Your task to perform on an android device: add a label to a message in the gmail app Image 0: 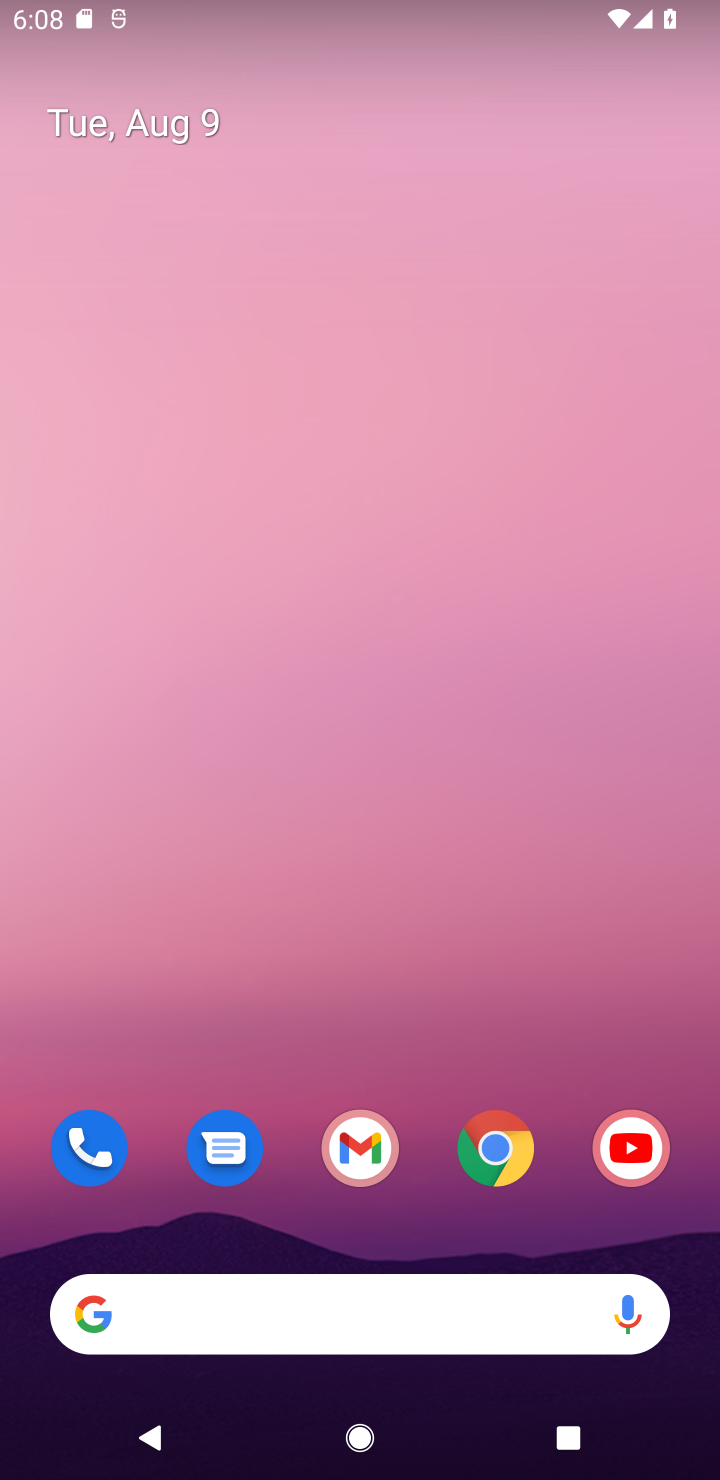
Step 0: drag from (338, 1246) to (365, 14)
Your task to perform on an android device: add a label to a message in the gmail app Image 1: 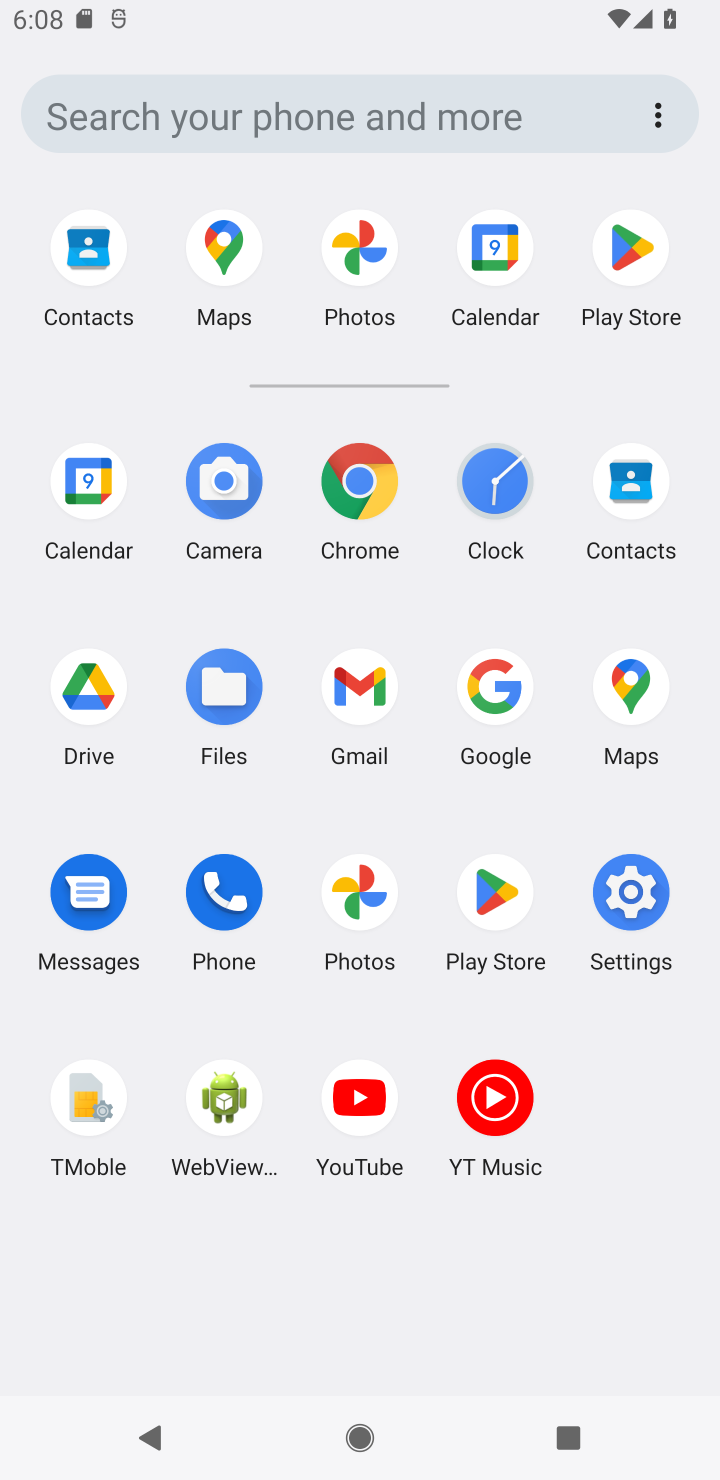
Step 1: click (358, 708)
Your task to perform on an android device: add a label to a message in the gmail app Image 2: 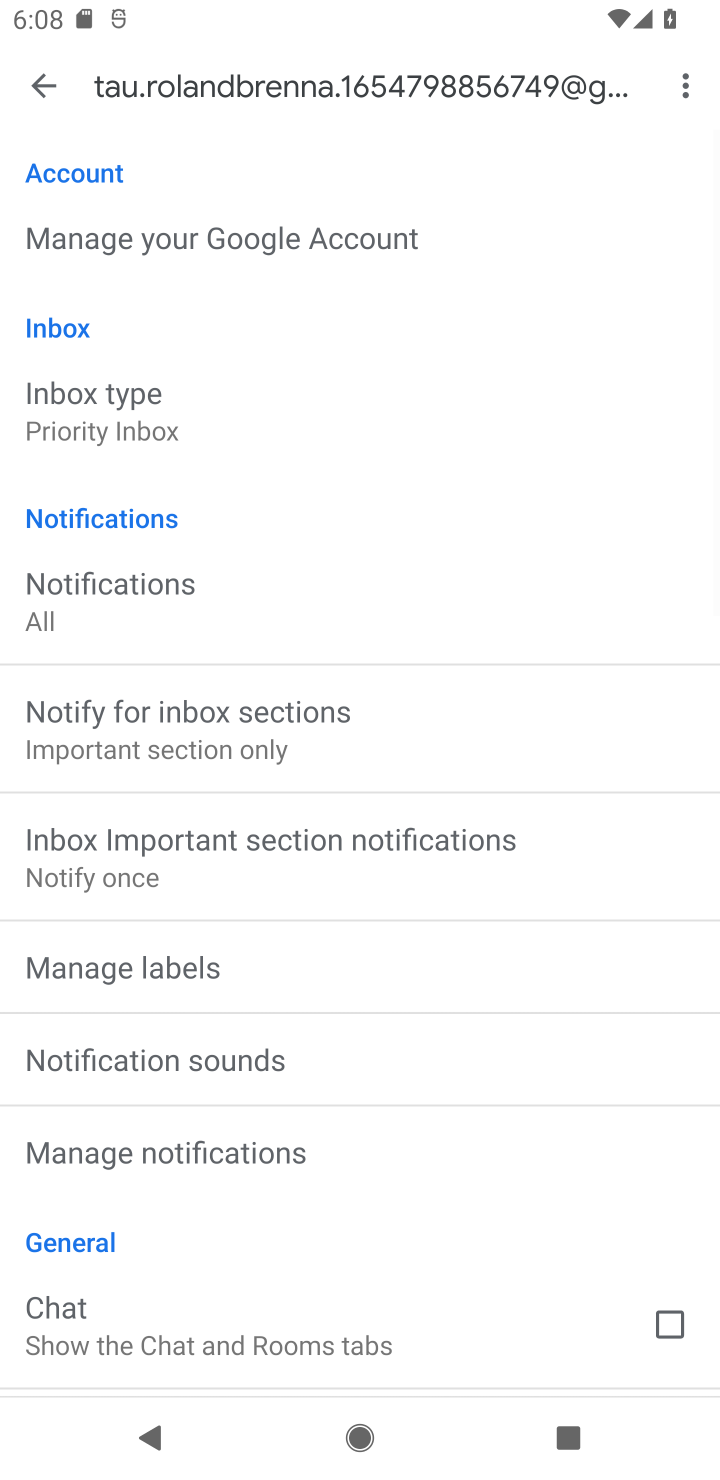
Step 2: click (38, 85)
Your task to perform on an android device: add a label to a message in the gmail app Image 3: 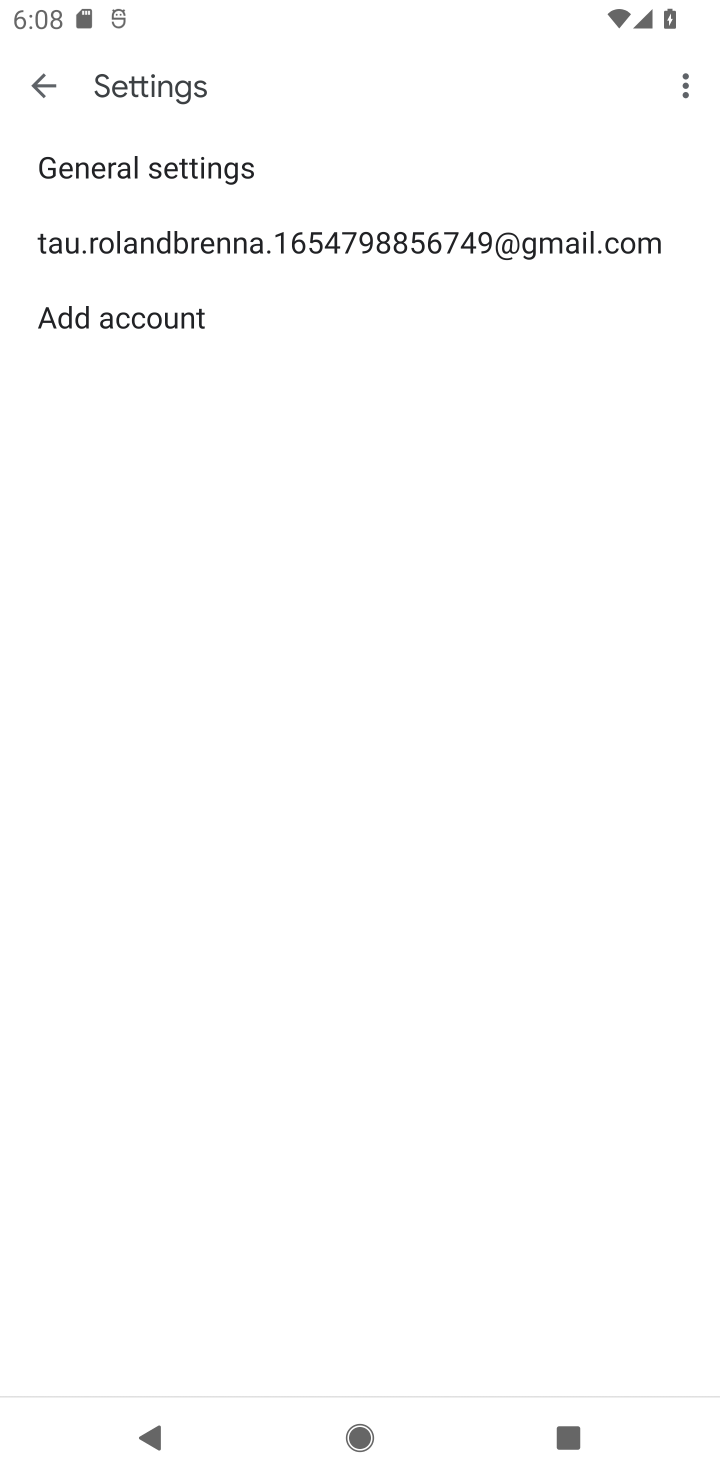
Step 3: click (55, 82)
Your task to perform on an android device: add a label to a message in the gmail app Image 4: 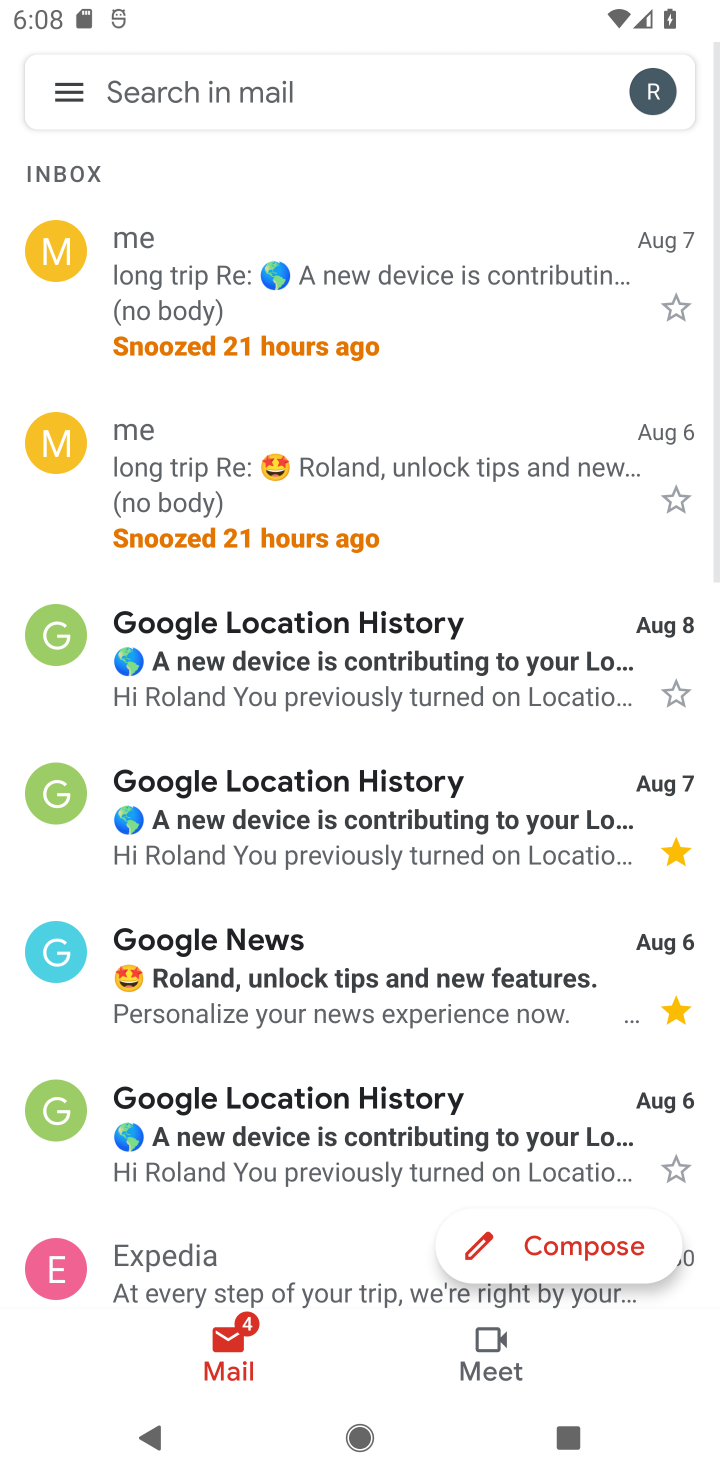
Step 4: click (66, 811)
Your task to perform on an android device: add a label to a message in the gmail app Image 5: 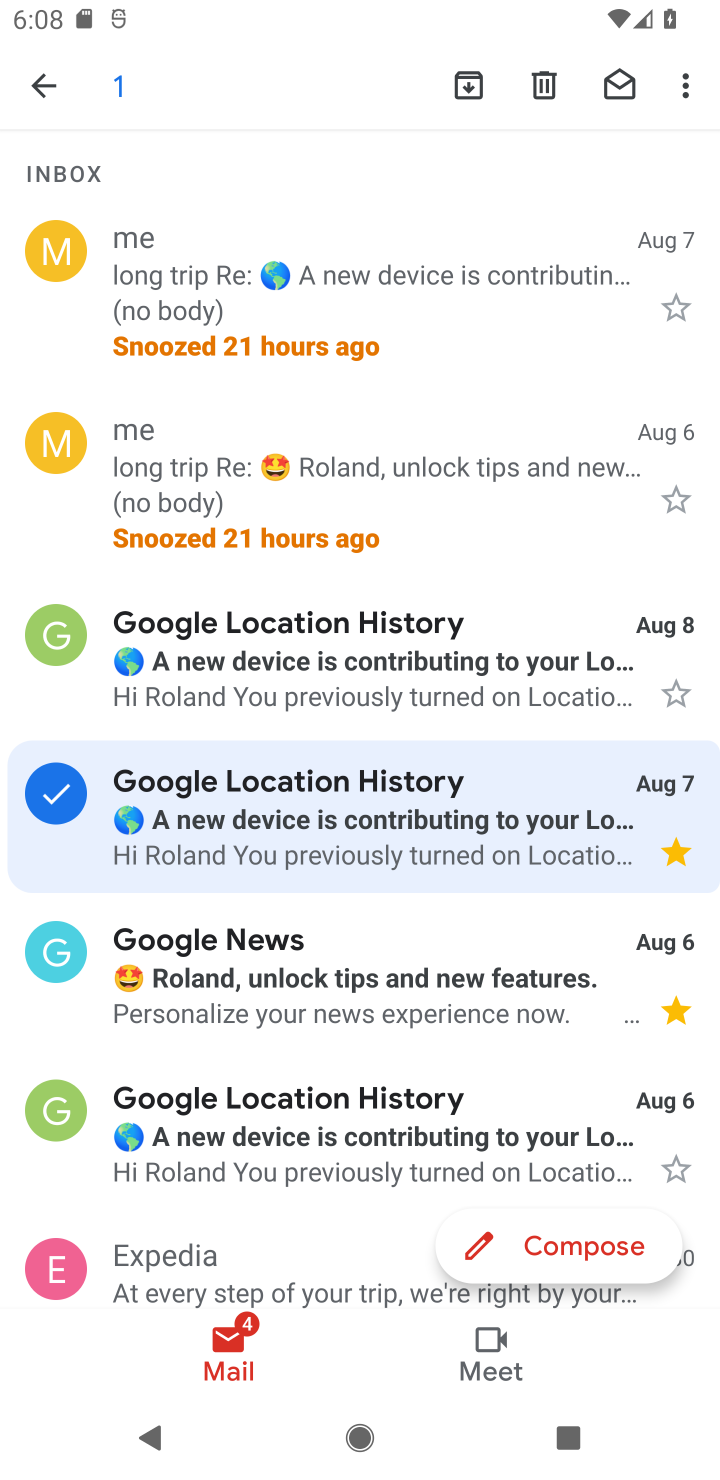
Step 5: click (693, 85)
Your task to perform on an android device: add a label to a message in the gmail app Image 6: 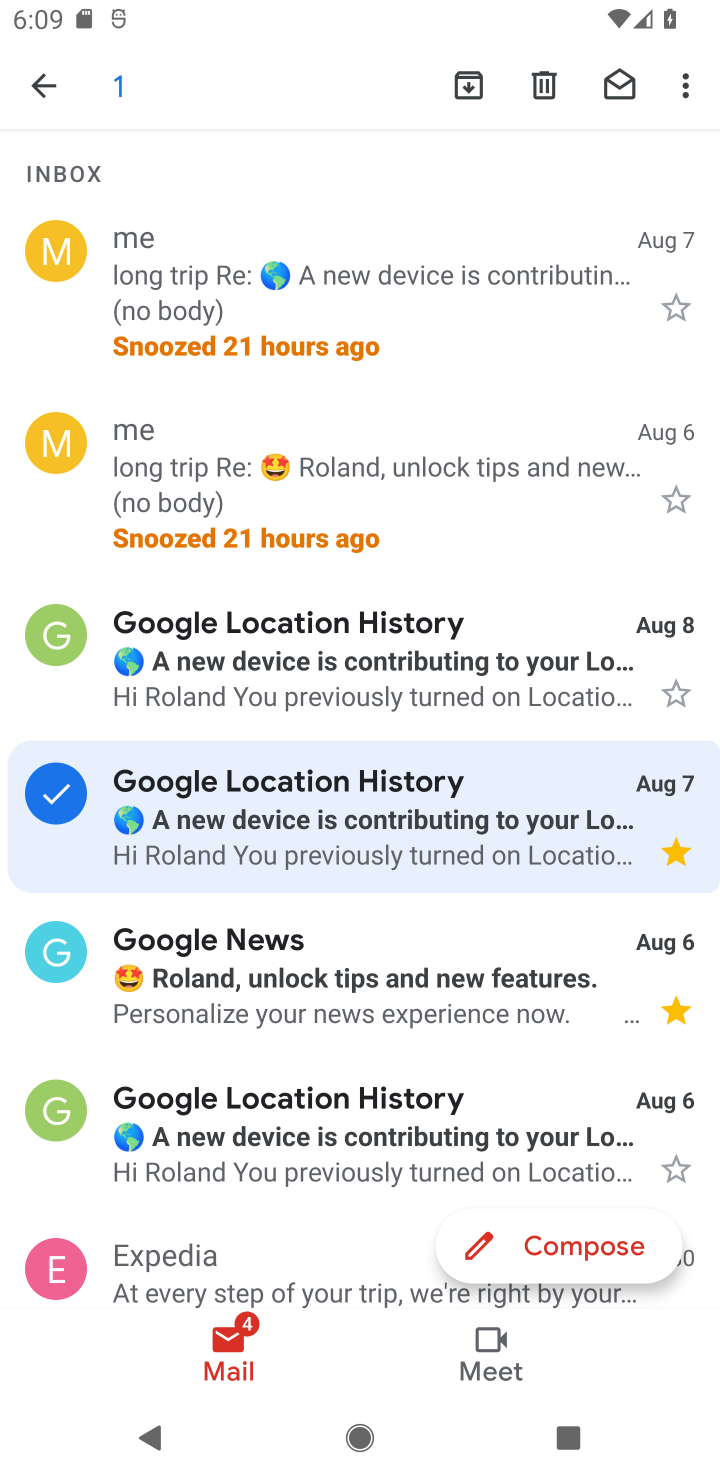
Step 6: click (679, 93)
Your task to perform on an android device: add a label to a message in the gmail app Image 7: 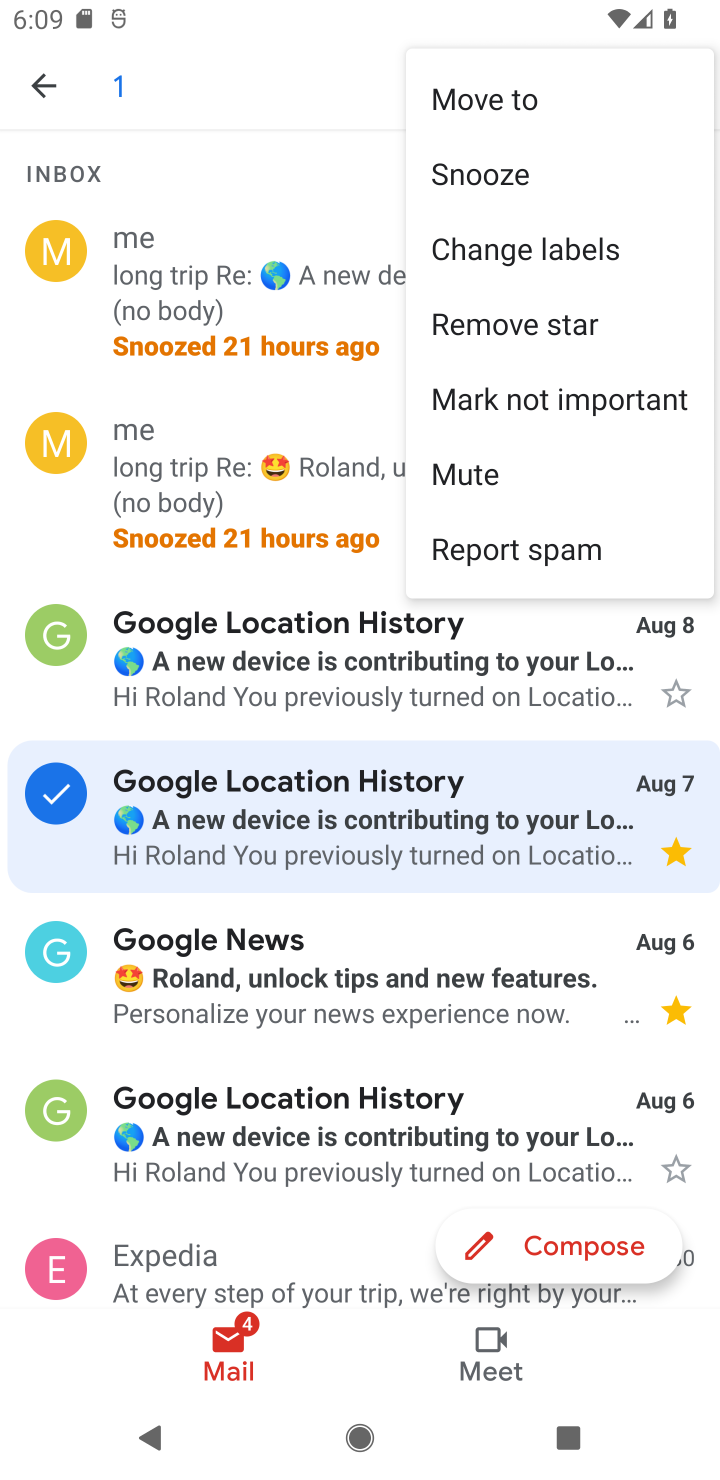
Step 7: click (550, 237)
Your task to perform on an android device: add a label to a message in the gmail app Image 8: 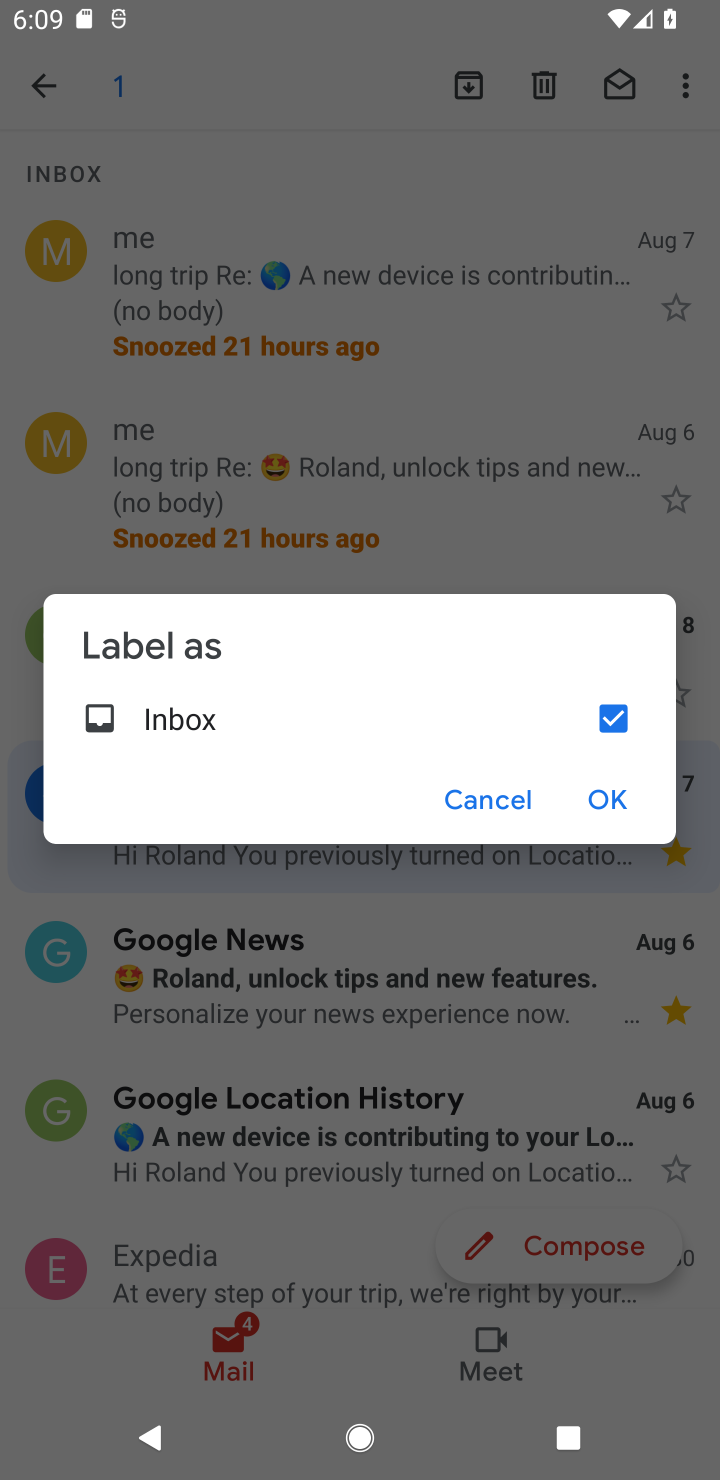
Step 8: click (541, 723)
Your task to perform on an android device: add a label to a message in the gmail app Image 9: 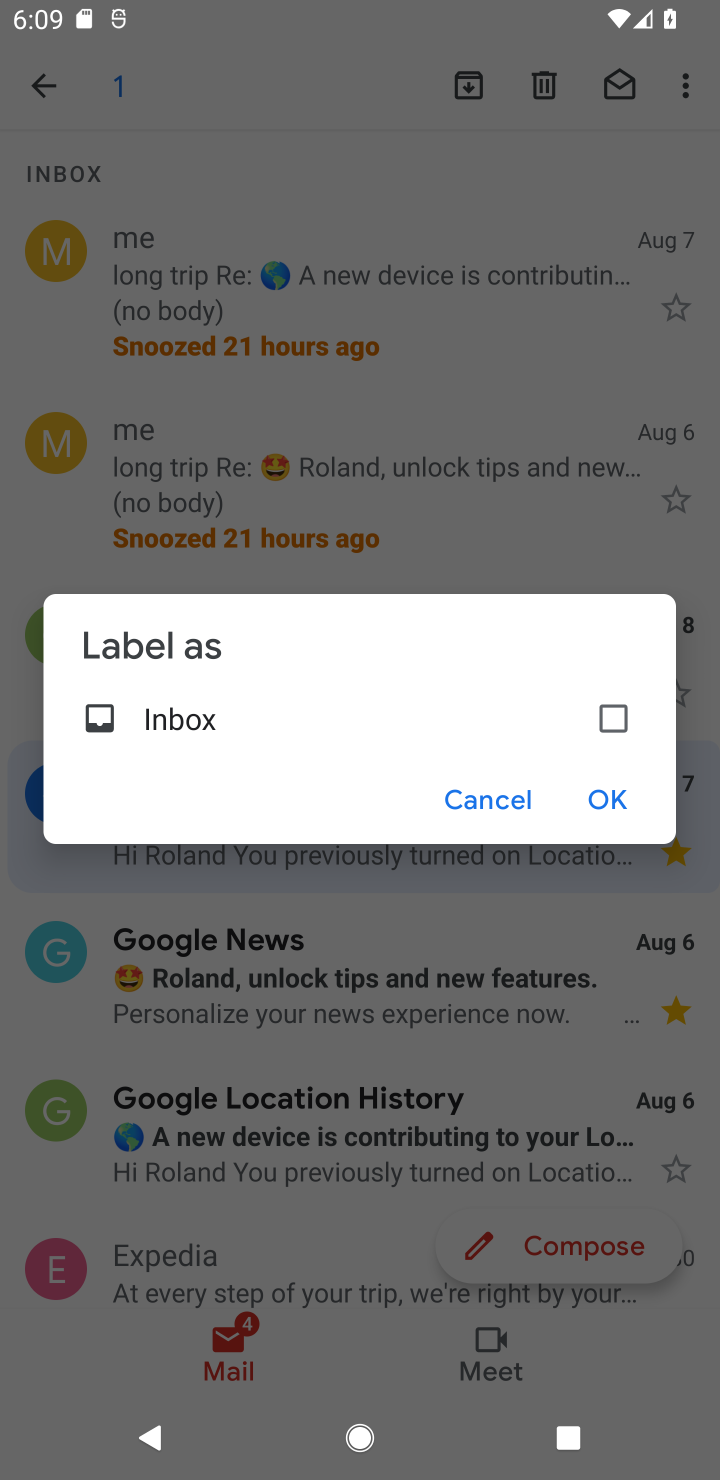
Step 9: click (625, 794)
Your task to perform on an android device: add a label to a message in the gmail app Image 10: 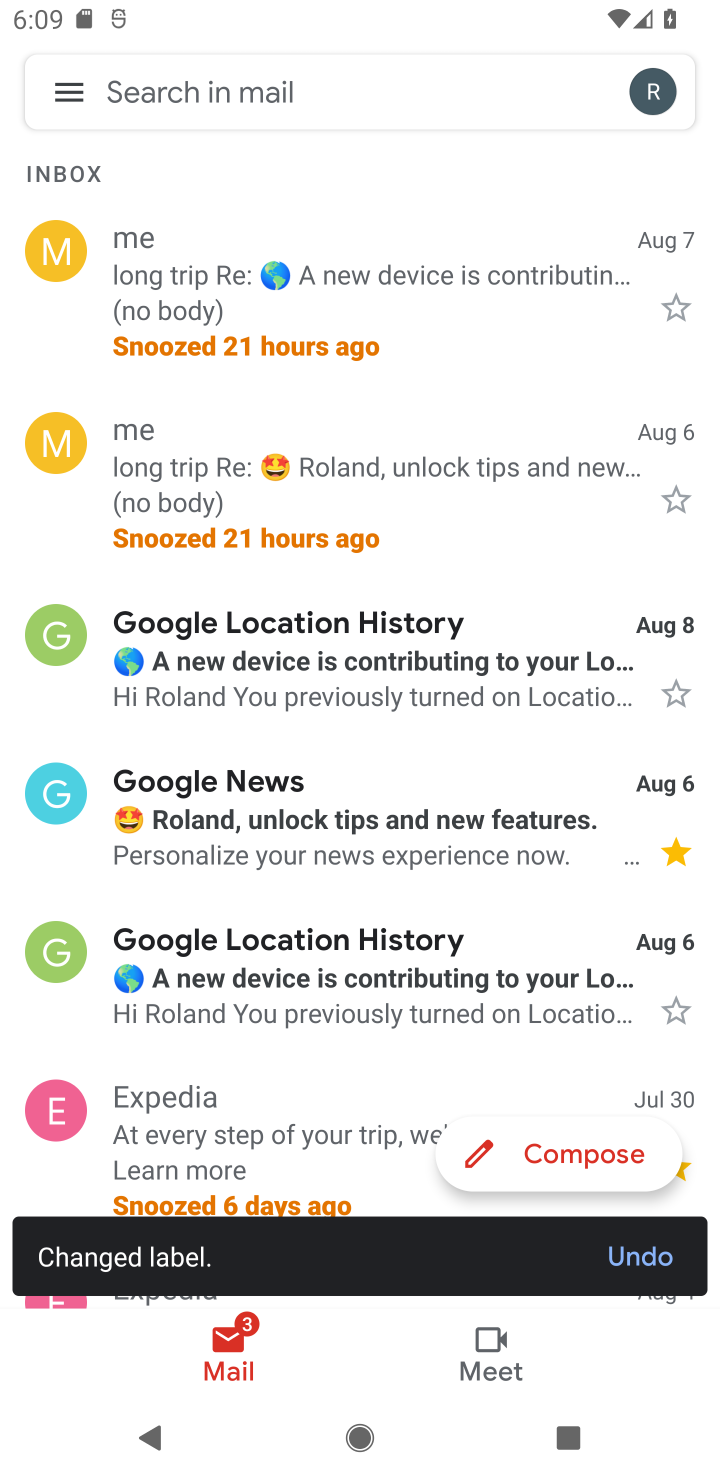
Step 10: task complete